Your task to perform on an android device: See recent photos Image 0: 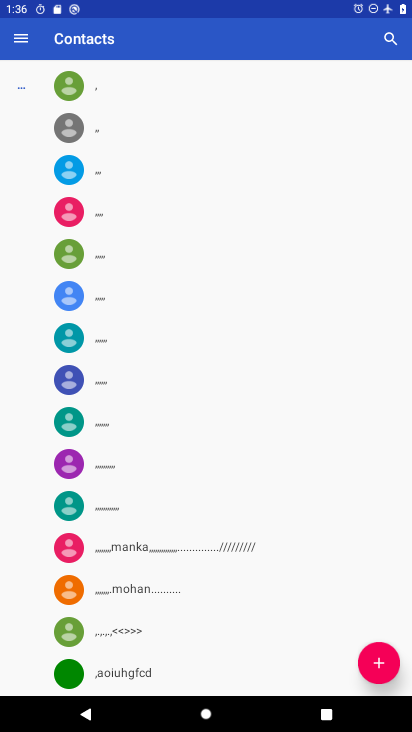
Step 0: press home button
Your task to perform on an android device: See recent photos Image 1: 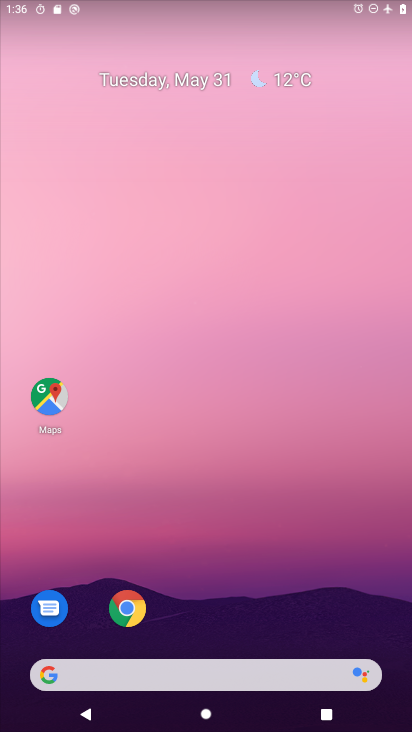
Step 1: drag from (282, 648) to (271, 11)
Your task to perform on an android device: See recent photos Image 2: 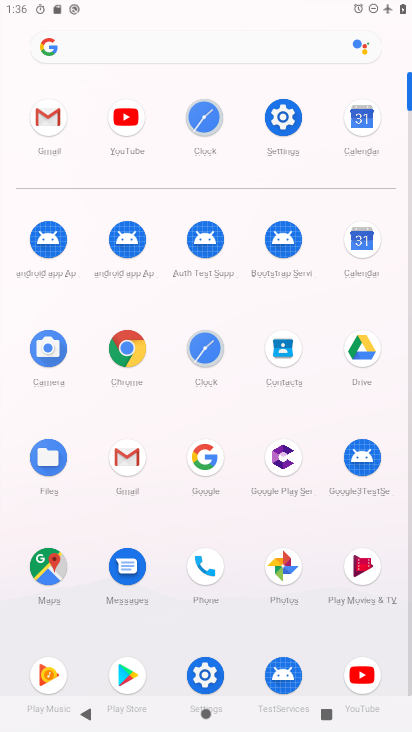
Step 2: click (274, 562)
Your task to perform on an android device: See recent photos Image 3: 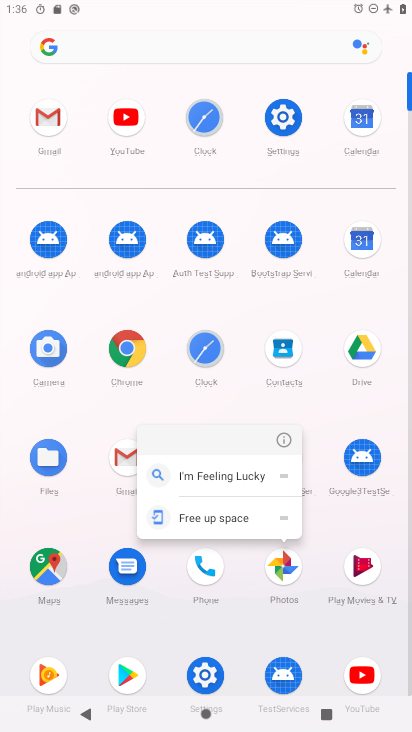
Step 3: click (277, 569)
Your task to perform on an android device: See recent photos Image 4: 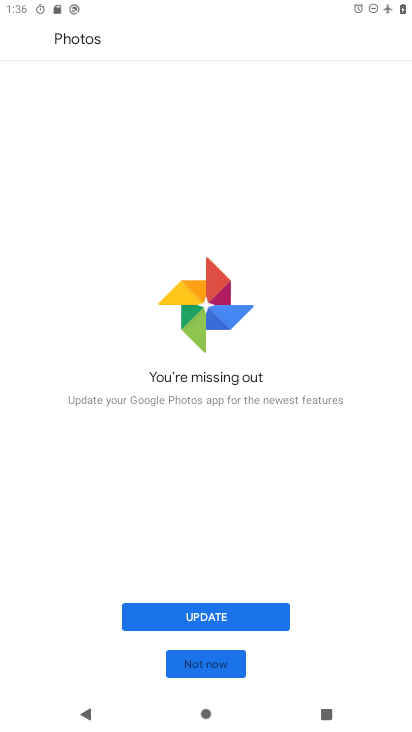
Step 4: click (199, 675)
Your task to perform on an android device: See recent photos Image 5: 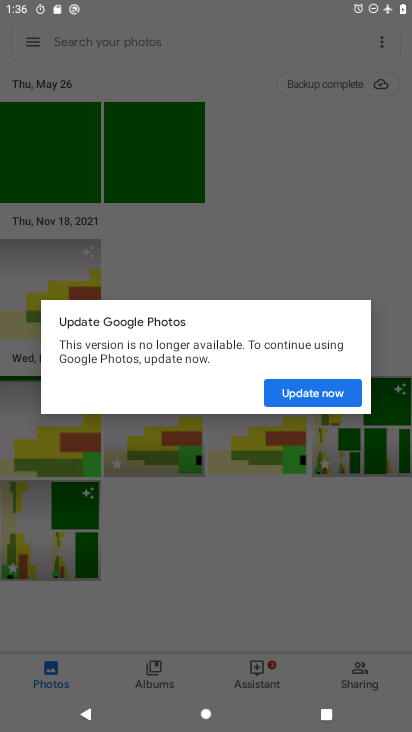
Step 5: click (296, 393)
Your task to perform on an android device: See recent photos Image 6: 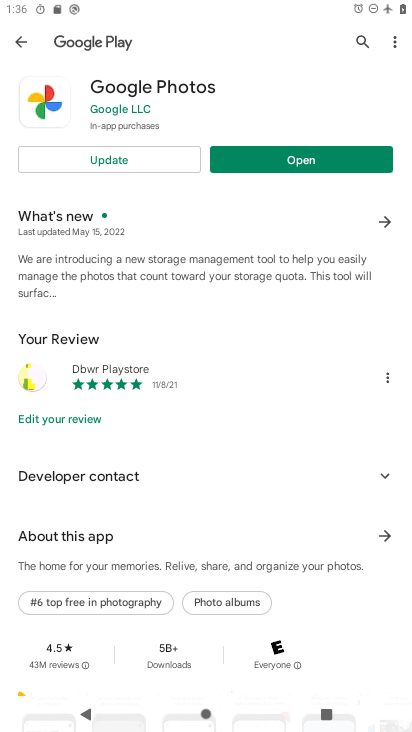
Step 6: click (149, 165)
Your task to perform on an android device: See recent photos Image 7: 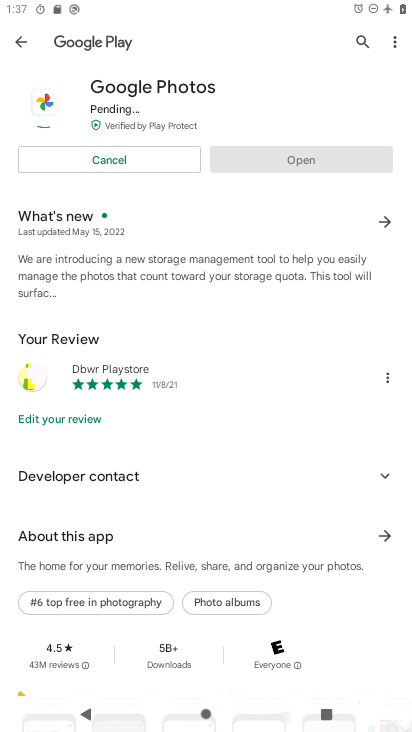
Step 7: click (98, 157)
Your task to perform on an android device: See recent photos Image 8: 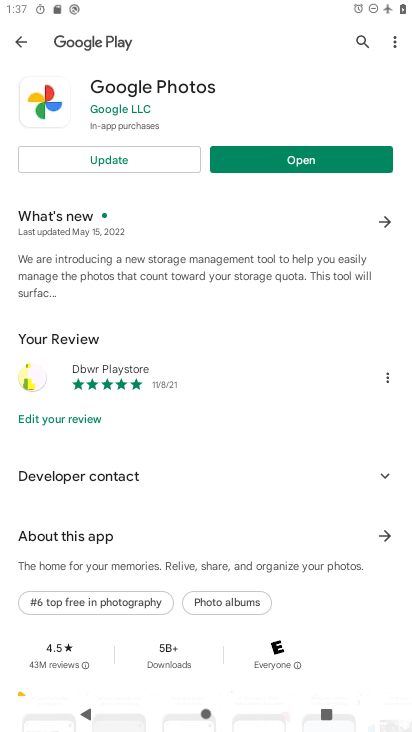
Step 8: click (263, 160)
Your task to perform on an android device: See recent photos Image 9: 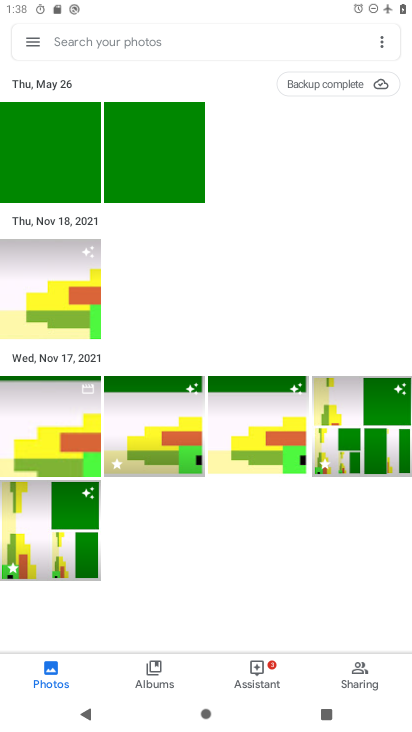
Step 9: task complete